Your task to perform on an android device: set the stopwatch Image 0: 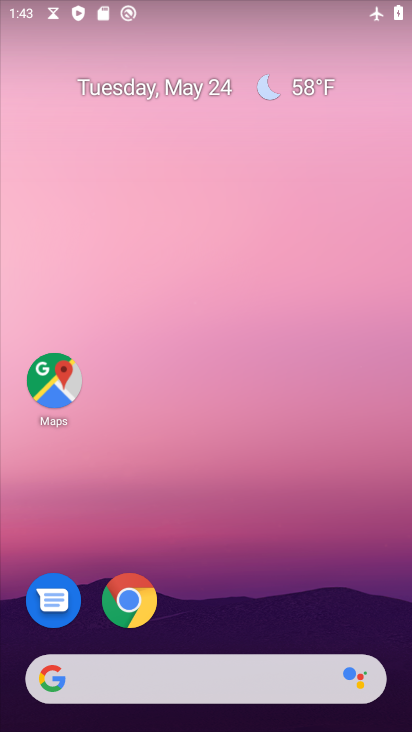
Step 0: drag from (277, 538) to (210, 48)
Your task to perform on an android device: set the stopwatch Image 1: 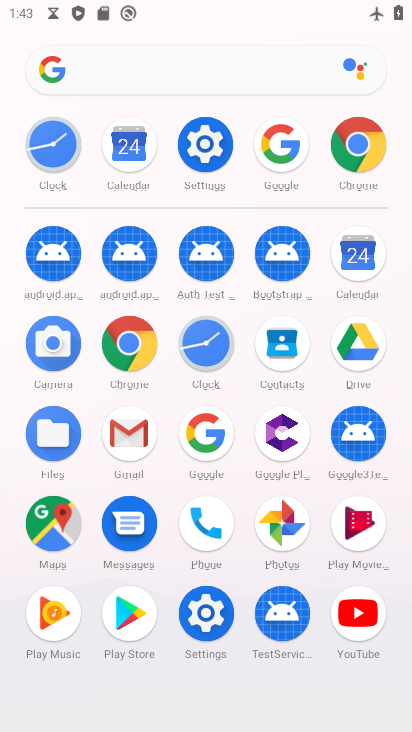
Step 1: click (205, 360)
Your task to perform on an android device: set the stopwatch Image 2: 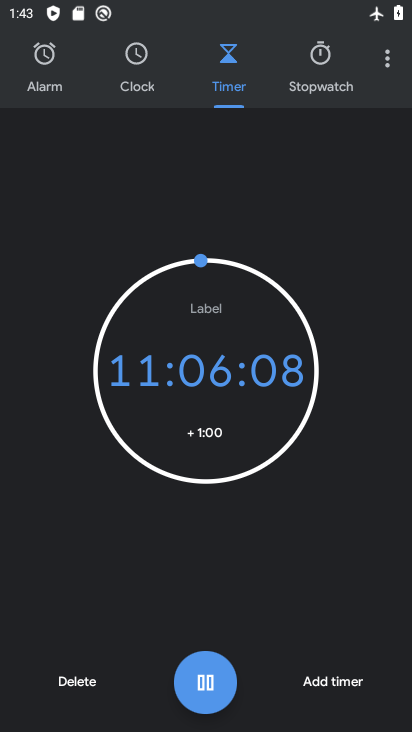
Step 2: click (320, 76)
Your task to perform on an android device: set the stopwatch Image 3: 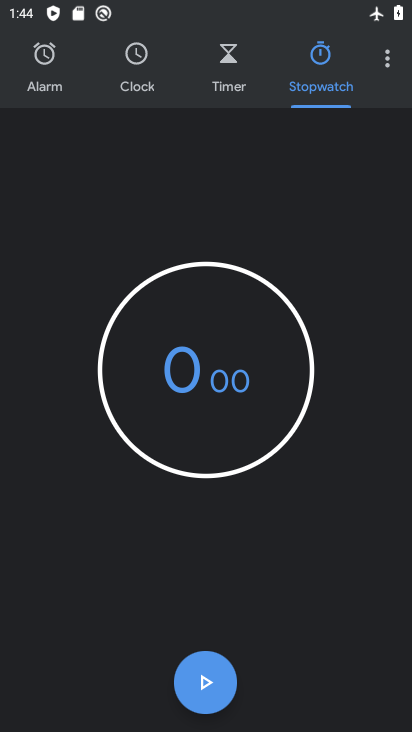
Step 3: click (209, 700)
Your task to perform on an android device: set the stopwatch Image 4: 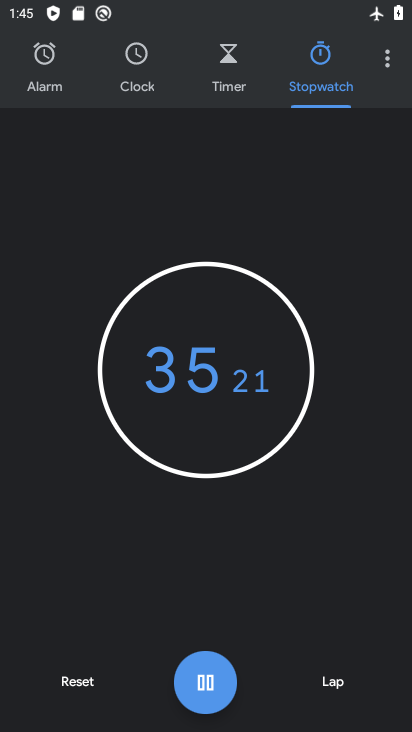
Step 4: task complete